Your task to perform on an android device: turn on wifi Image 0: 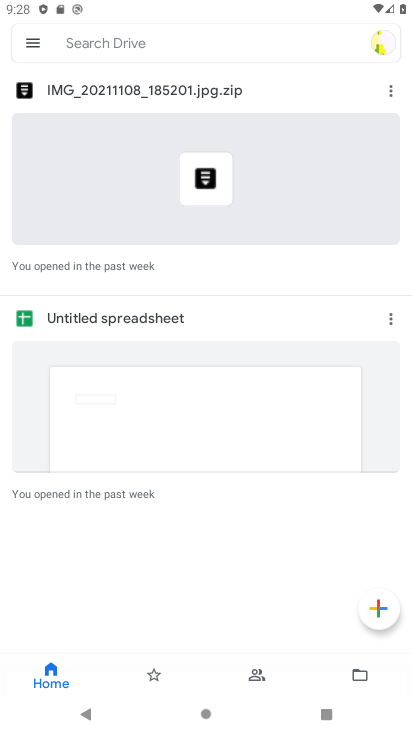
Step 0: press home button
Your task to perform on an android device: turn on wifi Image 1: 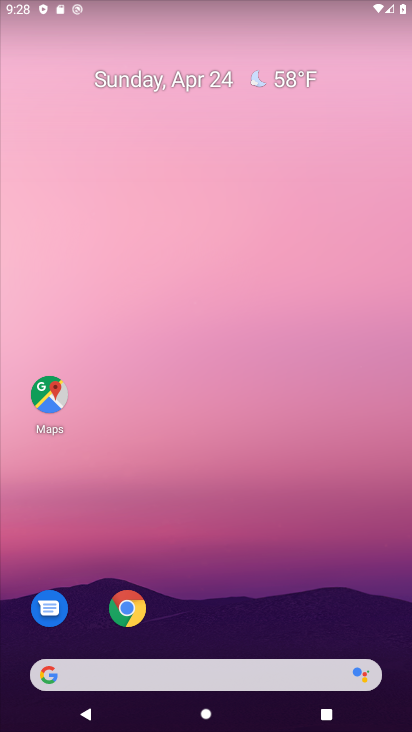
Step 1: drag from (291, 543) to (308, 50)
Your task to perform on an android device: turn on wifi Image 2: 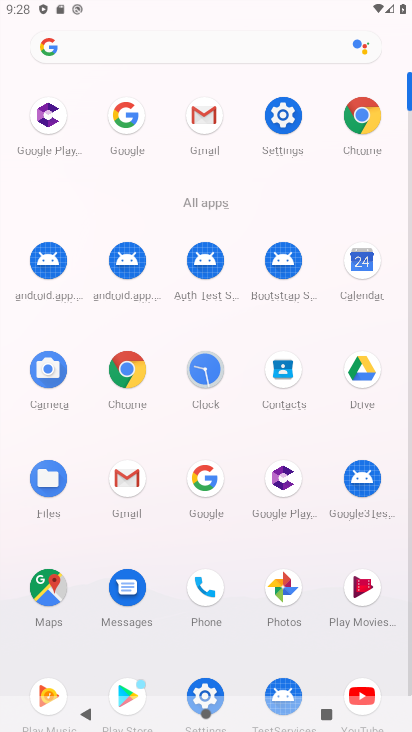
Step 2: click (278, 112)
Your task to perform on an android device: turn on wifi Image 3: 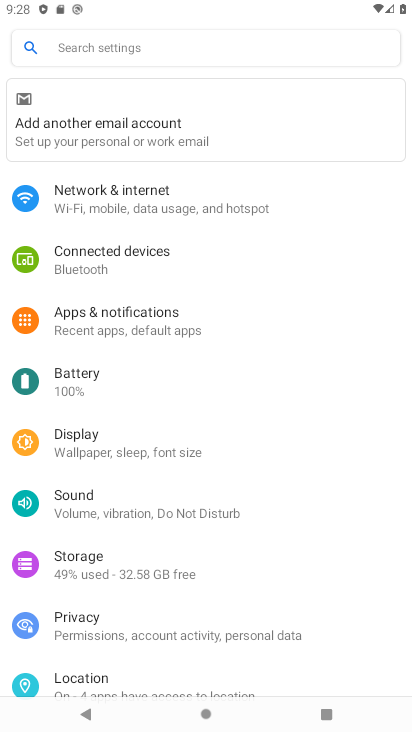
Step 3: drag from (323, 466) to (325, 101)
Your task to perform on an android device: turn on wifi Image 4: 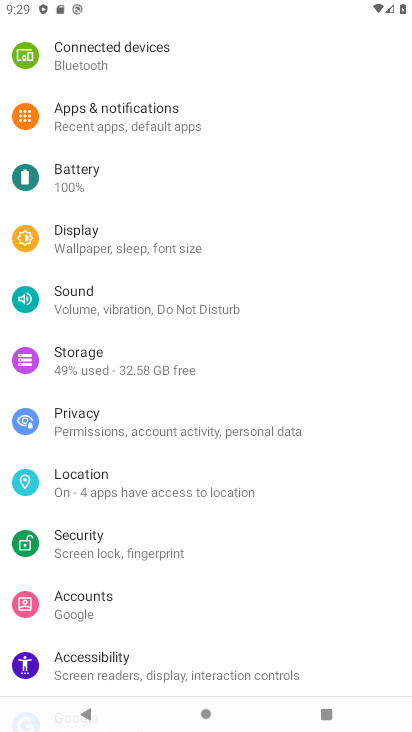
Step 4: drag from (227, 165) to (171, 637)
Your task to perform on an android device: turn on wifi Image 5: 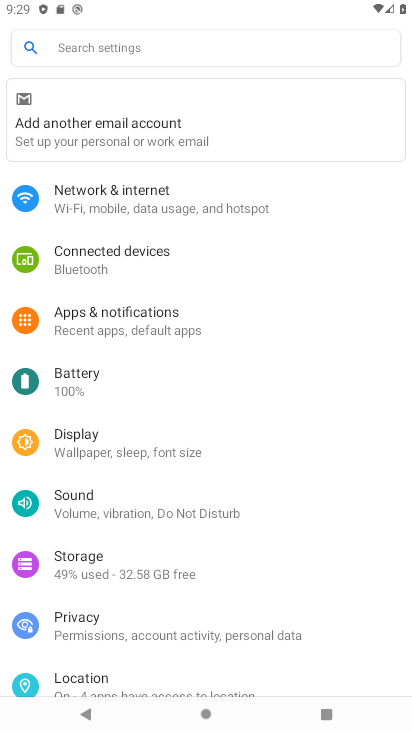
Step 5: drag from (167, 273) to (197, 579)
Your task to perform on an android device: turn on wifi Image 6: 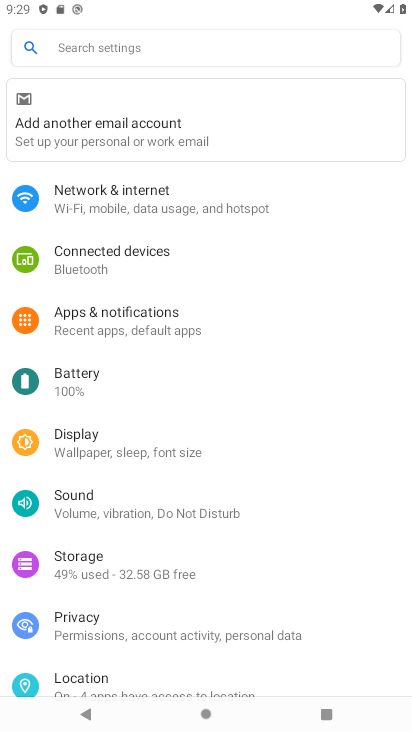
Step 6: click (158, 224)
Your task to perform on an android device: turn on wifi Image 7: 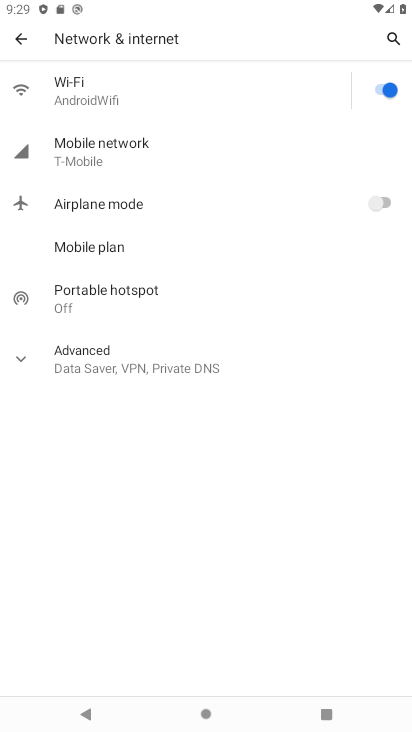
Step 7: task complete